Your task to perform on an android device: Go to sound settings Image 0: 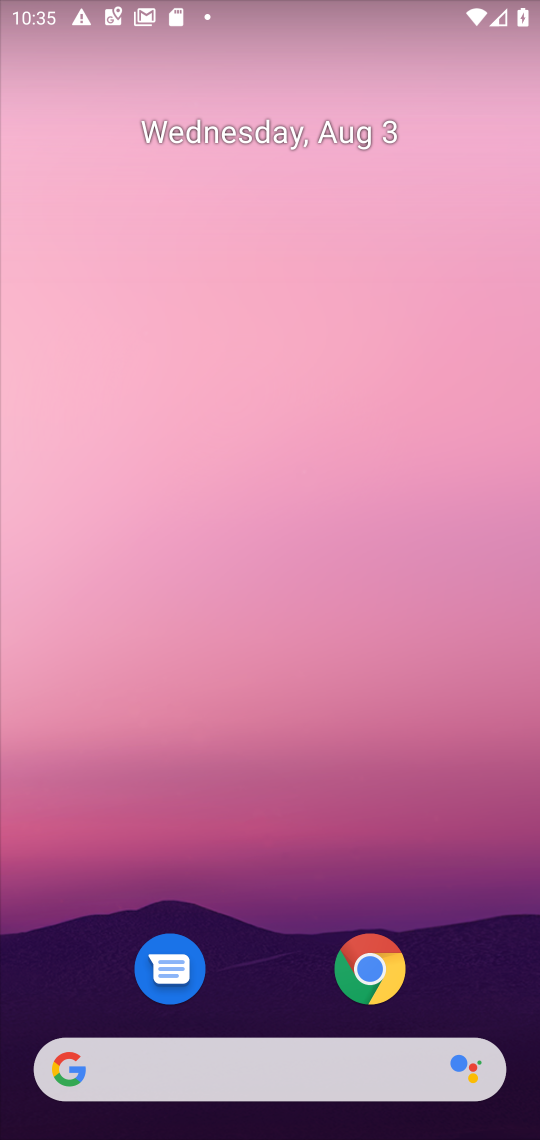
Step 0: drag from (307, 1012) to (226, 17)
Your task to perform on an android device: Go to sound settings Image 1: 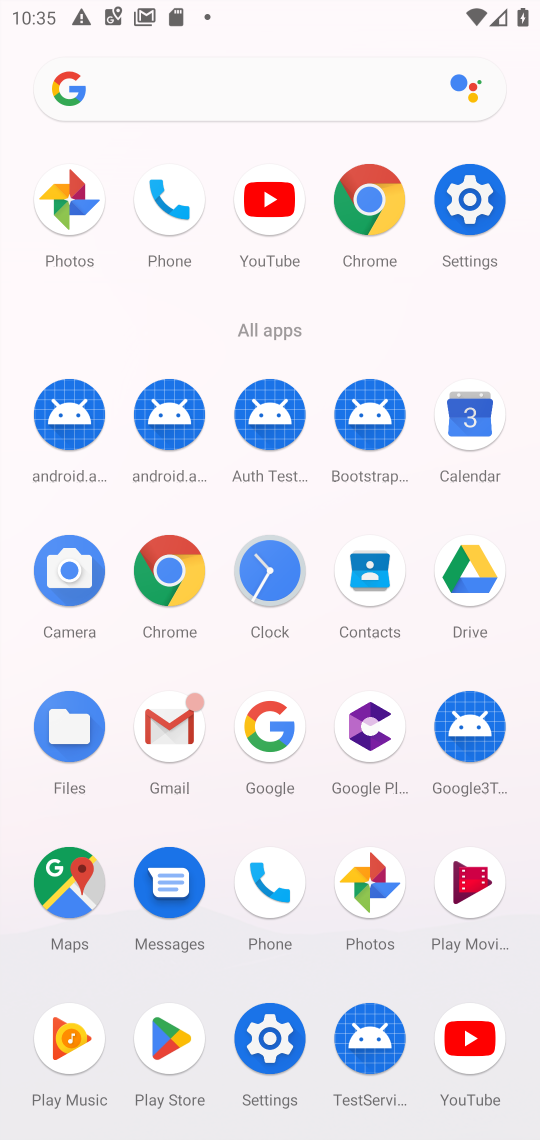
Step 1: click (275, 1057)
Your task to perform on an android device: Go to sound settings Image 2: 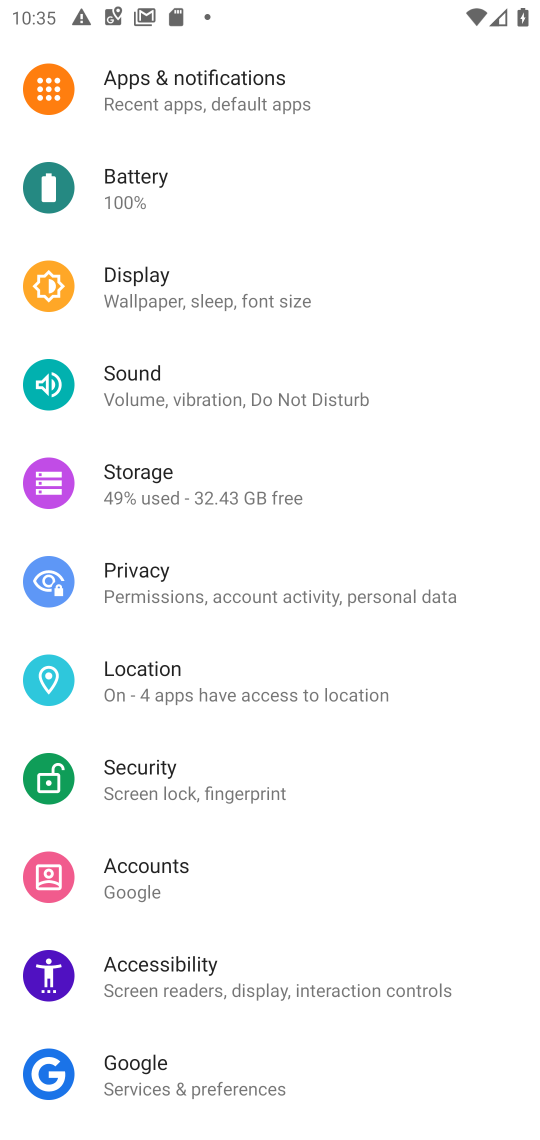
Step 2: click (166, 403)
Your task to perform on an android device: Go to sound settings Image 3: 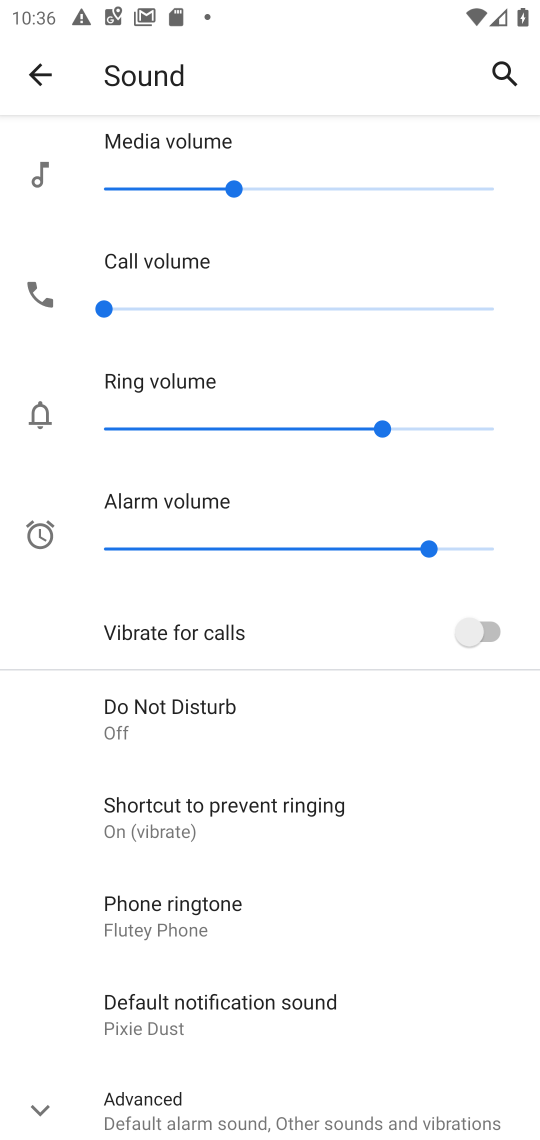
Step 3: task complete